Your task to perform on an android device: move an email to a new category in the gmail app Image 0: 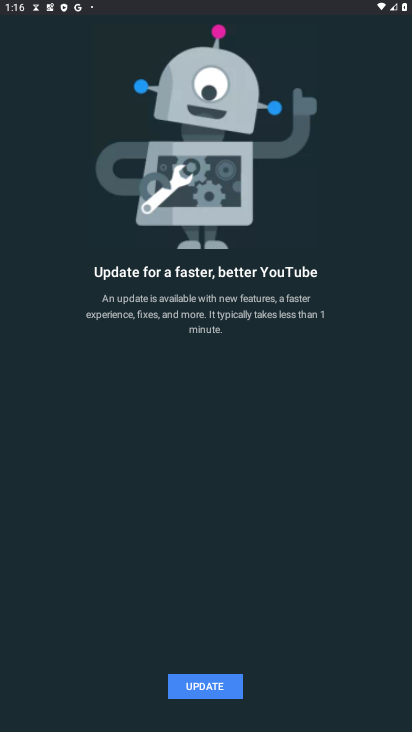
Step 0: press home button
Your task to perform on an android device: move an email to a new category in the gmail app Image 1: 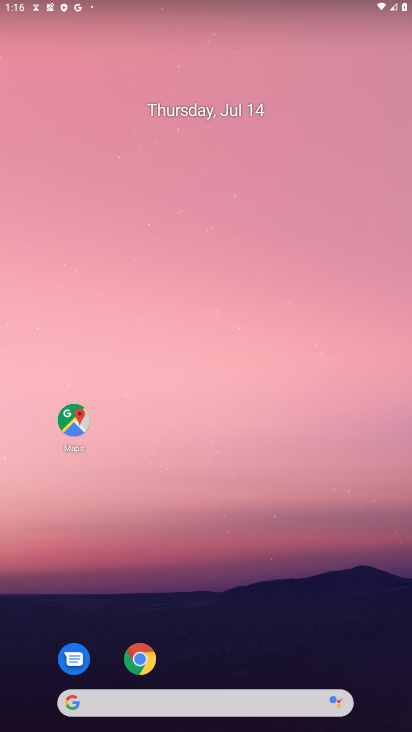
Step 1: drag from (43, 698) to (252, 221)
Your task to perform on an android device: move an email to a new category in the gmail app Image 2: 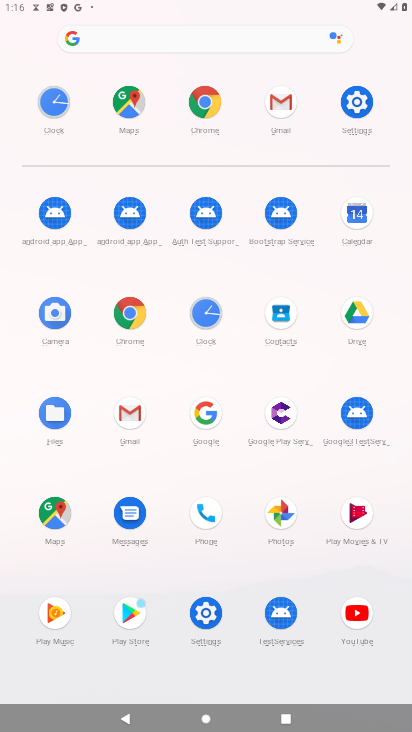
Step 2: click (125, 405)
Your task to perform on an android device: move an email to a new category in the gmail app Image 3: 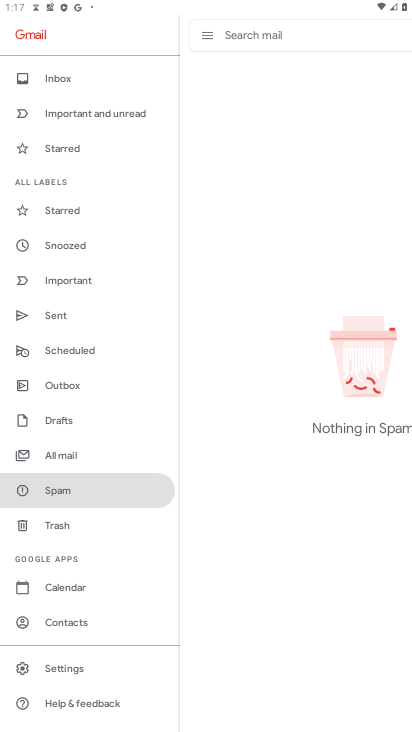
Step 3: click (80, 82)
Your task to perform on an android device: move an email to a new category in the gmail app Image 4: 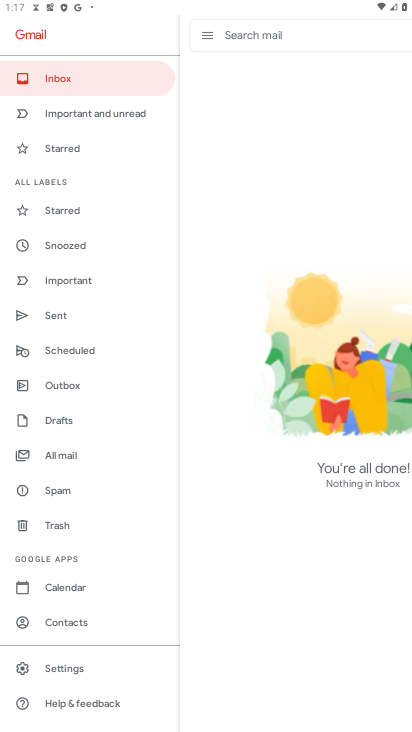
Step 4: task complete